Your task to perform on an android device: Play the last video I watched on Youtube Image 0: 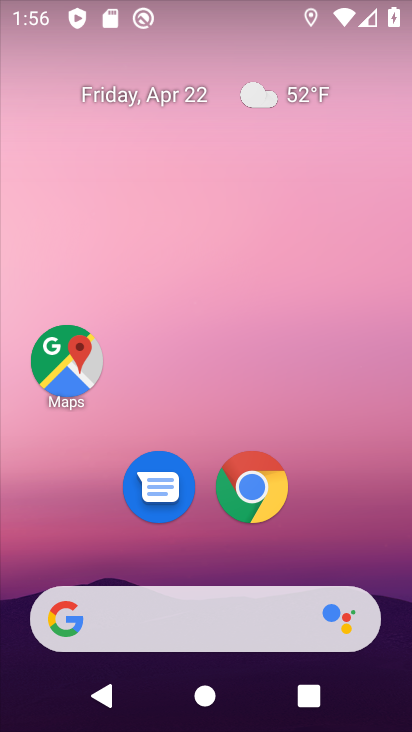
Step 0: drag from (229, 551) to (281, 67)
Your task to perform on an android device: Play the last video I watched on Youtube Image 1: 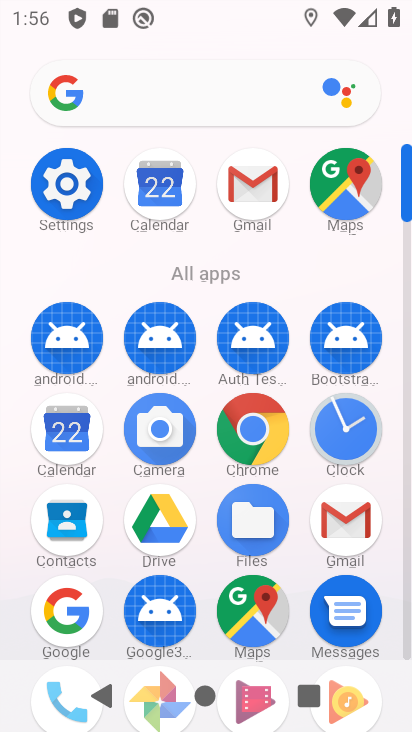
Step 1: drag from (202, 556) to (220, 167)
Your task to perform on an android device: Play the last video I watched on Youtube Image 2: 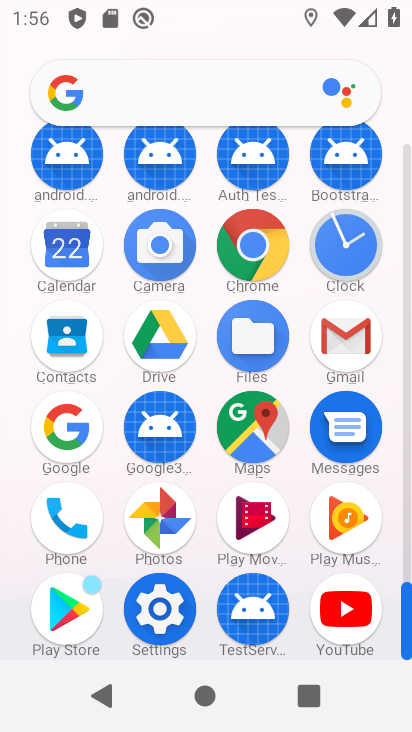
Step 2: click (354, 628)
Your task to perform on an android device: Play the last video I watched on Youtube Image 3: 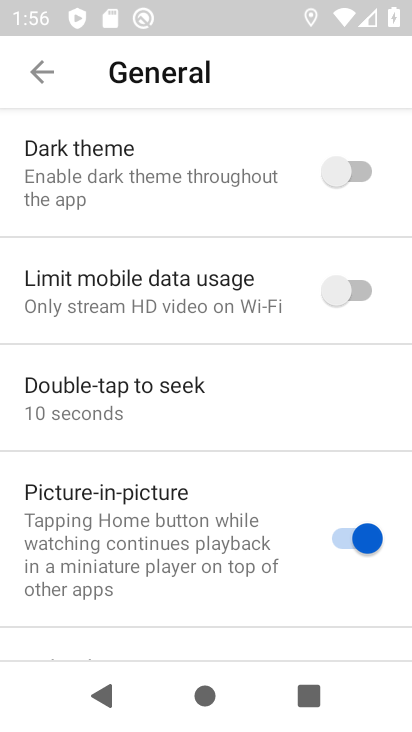
Step 3: click (42, 64)
Your task to perform on an android device: Play the last video I watched on Youtube Image 4: 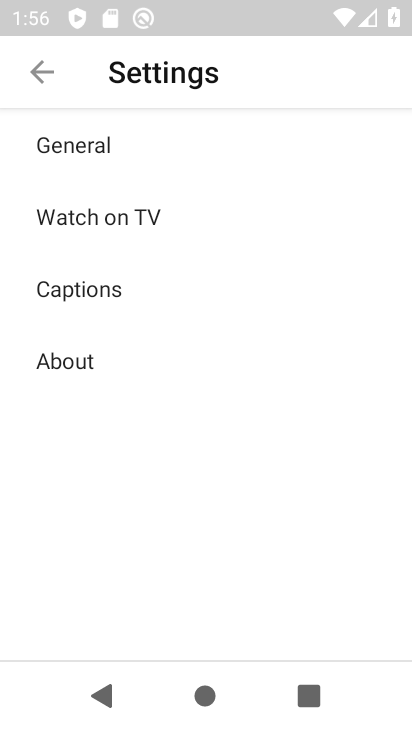
Step 4: click (42, 64)
Your task to perform on an android device: Play the last video I watched on Youtube Image 5: 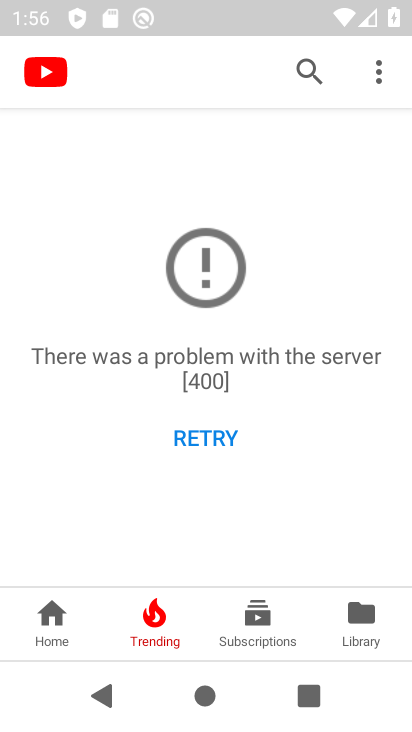
Step 5: drag from (219, 288) to (212, 583)
Your task to perform on an android device: Play the last video I watched on Youtube Image 6: 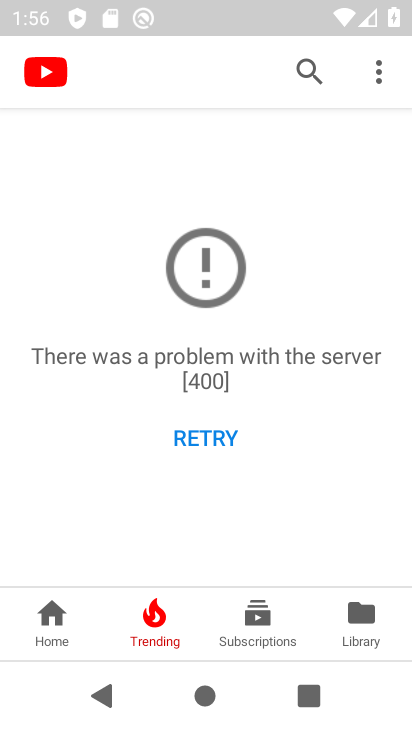
Step 6: click (349, 630)
Your task to perform on an android device: Play the last video I watched on Youtube Image 7: 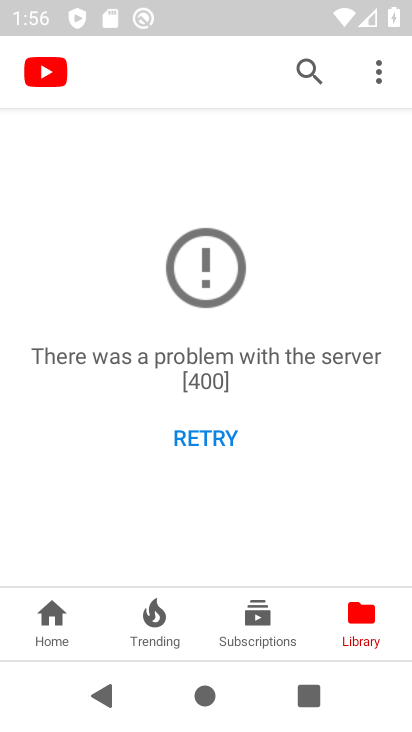
Step 7: click (347, 629)
Your task to perform on an android device: Play the last video I watched on Youtube Image 8: 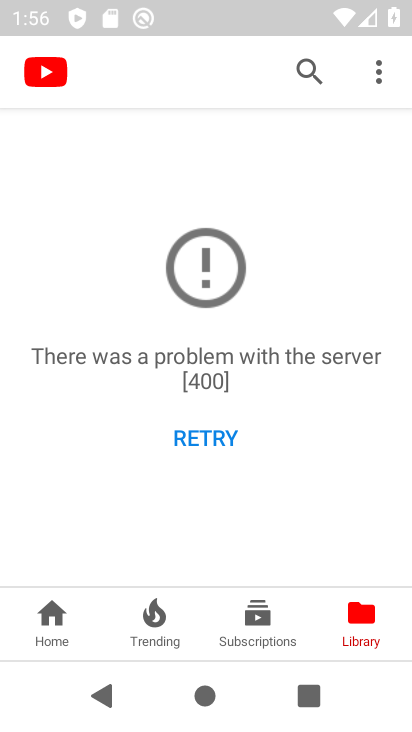
Step 8: task complete